Your task to perform on an android device: empty trash in the gmail app Image 0: 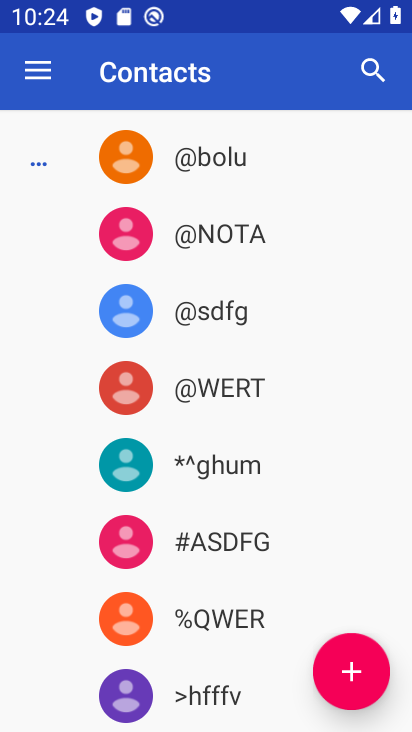
Step 0: press home button
Your task to perform on an android device: empty trash in the gmail app Image 1: 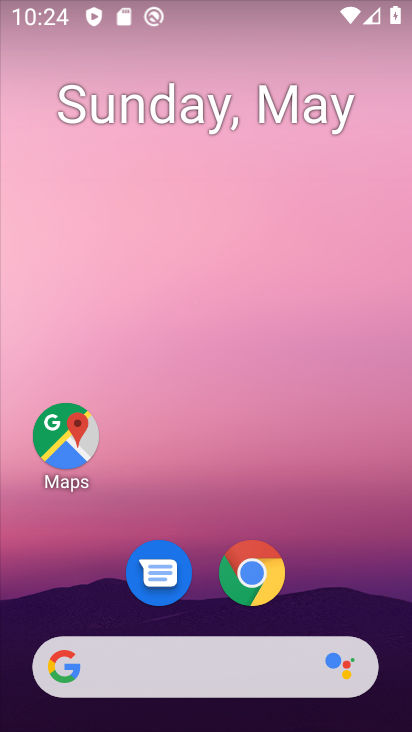
Step 1: drag from (245, 469) to (288, 62)
Your task to perform on an android device: empty trash in the gmail app Image 2: 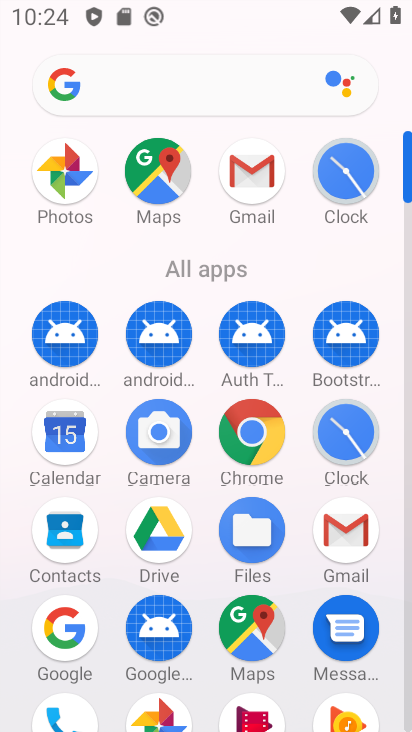
Step 2: click (239, 166)
Your task to perform on an android device: empty trash in the gmail app Image 3: 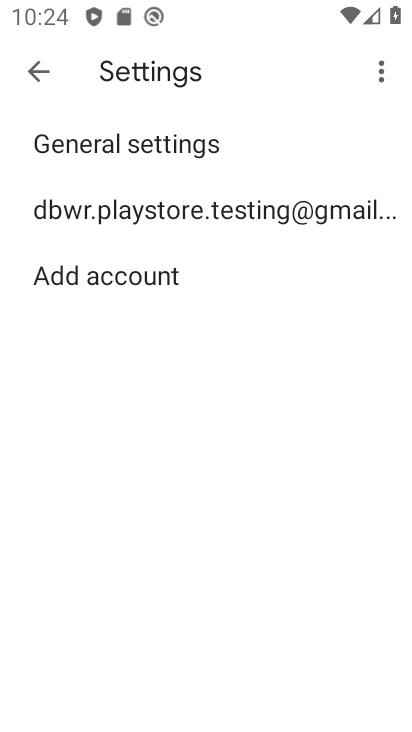
Step 3: click (37, 58)
Your task to perform on an android device: empty trash in the gmail app Image 4: 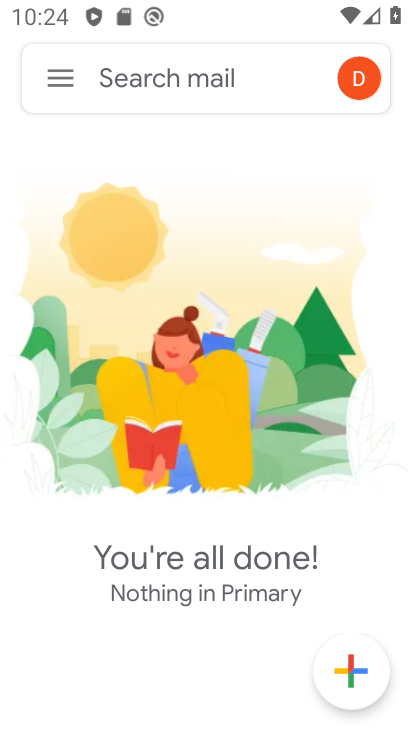
Step 4: click (59, 76)
Your task to perform on an android device: empty trash in the gmail app Image 5: 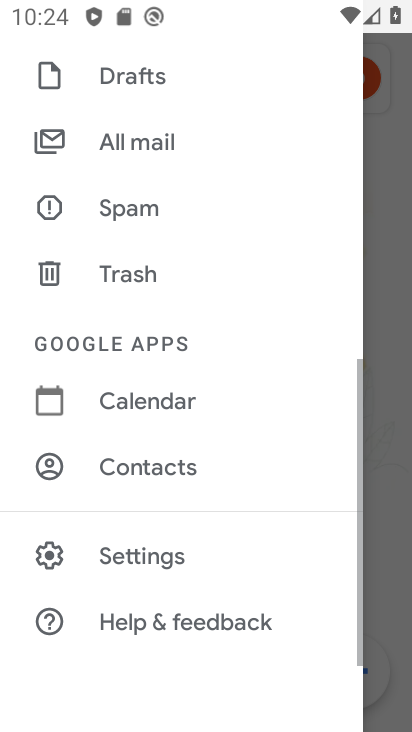
Step 5: click (119, 268)
Your task to perform on an android device: empty trash in the gmail app Image 6: 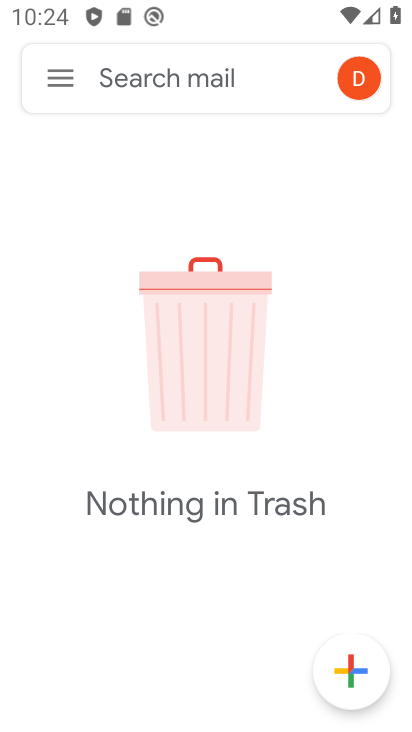
Step 6: task complete